Your task to perform on an android device: Open Google Chrome and open the bookmarks view Image 0: 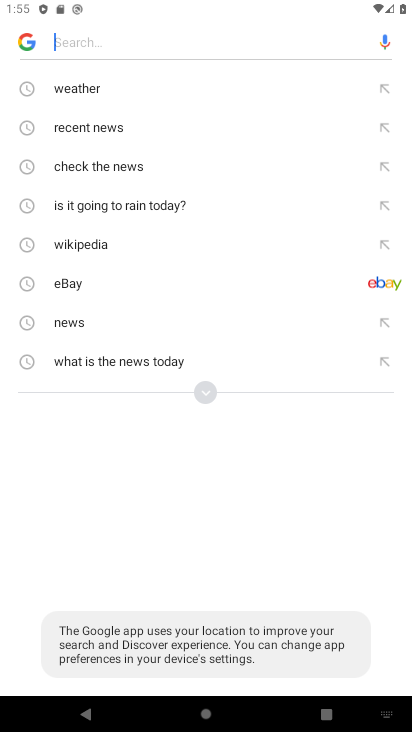
Step 0: press home button
Your task to perform on an android device: Open Google Chrome and open the bookmarks view Image 1: 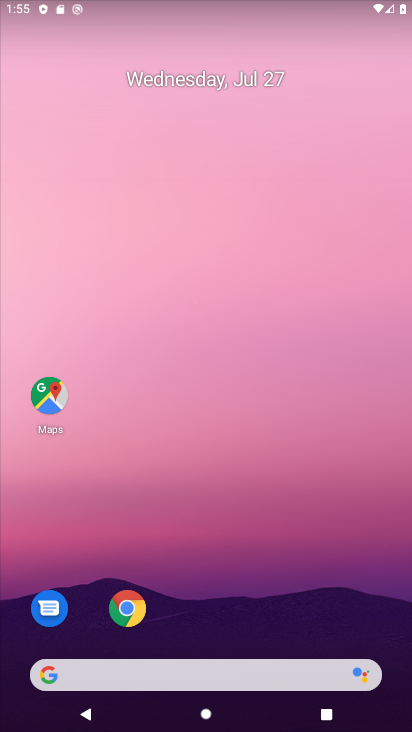
Step 1: click (124, 600)
Your task to perform on an android device: Open Google Chrome and open the bookmarks view Image 2: 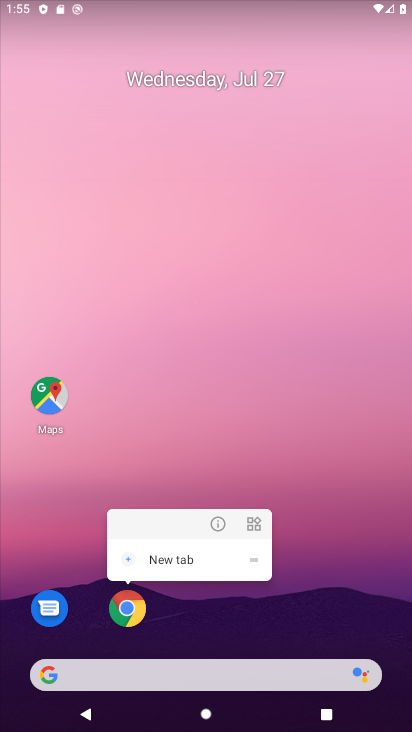
Step 2: click (124, 600)
Your task to perform on an android device: Open Google Chrome and open the bookmarks view Image 3: 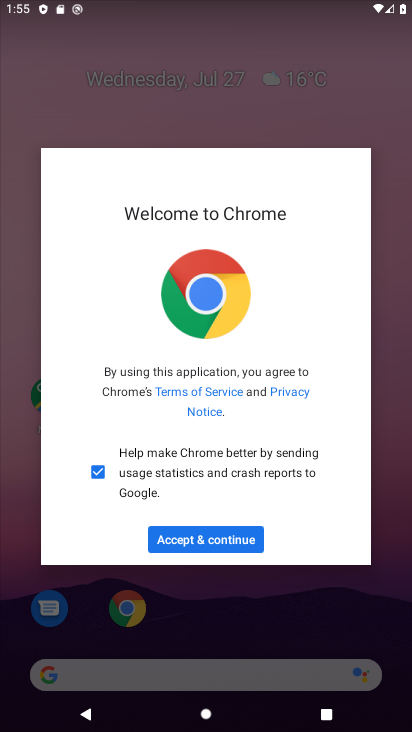
Step 3: click (224, 544)
Your task to perform on an android device: Open Google Chrome and open the bookmarks view Image 4: 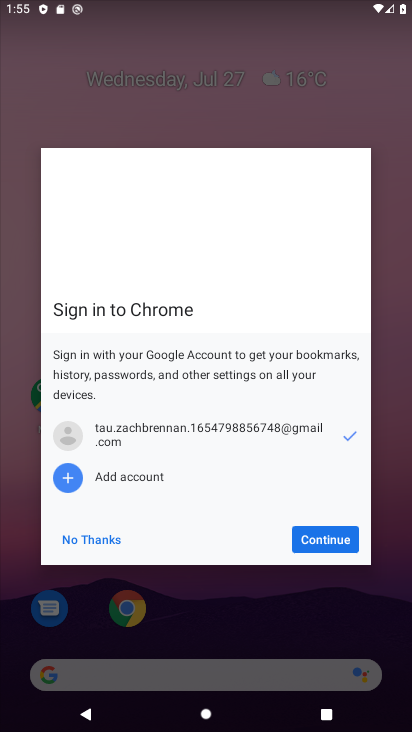
Step 4: click (305, 543)
Your task to perform on an android device: Open Google Chrome and open the bookmarks view Image 5: 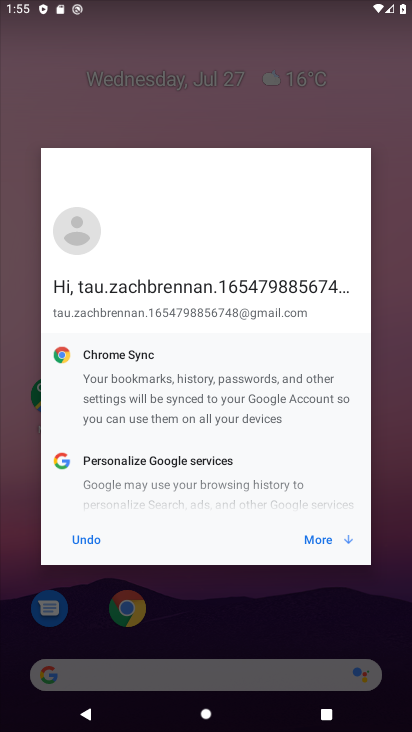
Step 5: click (318, 542)
Your task to perform on an android device: Open Google Chrome and open the bookmarks view Image 6: 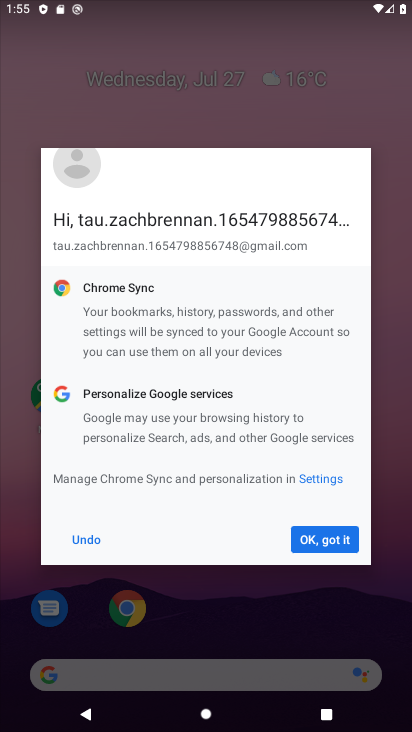
Step 6: click (318, 542)
Your task to perform on an android device: Open Google Chrome and open the bookmarks view Image 7: 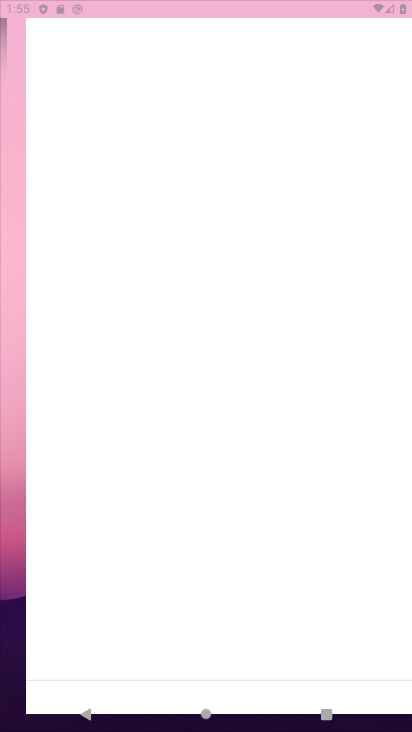
Step 7: click (342, 535)
Your task to perform on an android device: Open Google Chrome and open the bookmarks view Image 8: 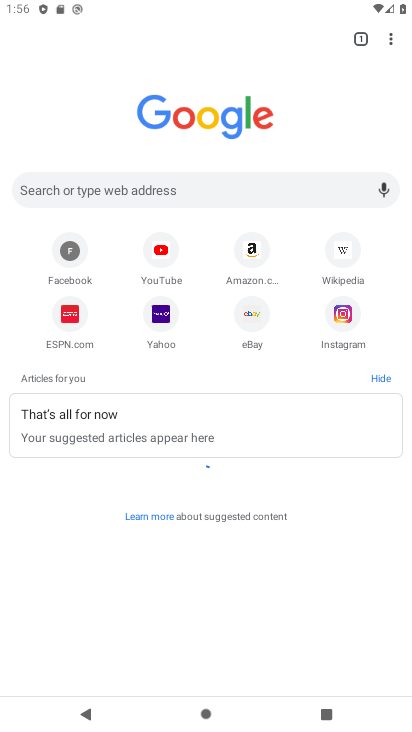
Step 8: click (395, 41)
Your task to perform on an android device: Open Google Chrome and open the bookmarks view Image 9: 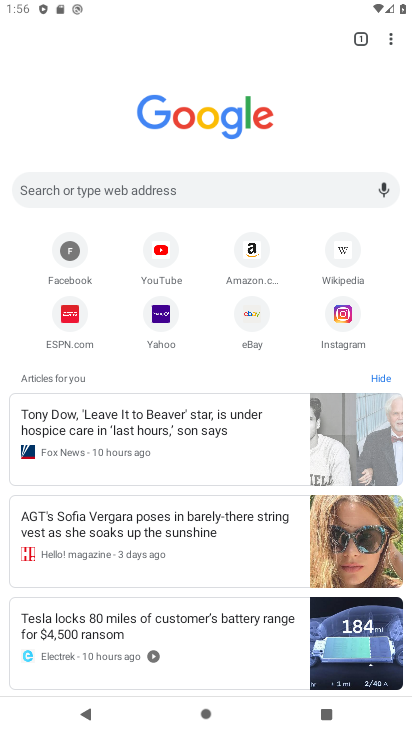
Step 9: click (395, 41)
Your task to perform on an android device: Open Google Chrome and open the bookmarks view Image 10: 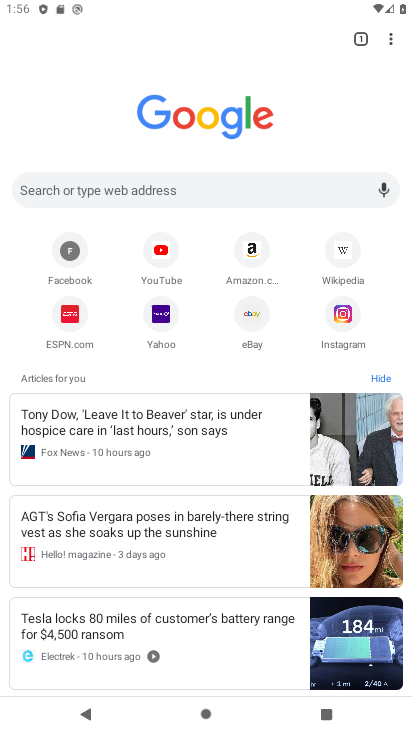
Step 10: click (390, 40)
Your task to perform on an android device: Open Google Chrome and open the bookmarks view Image 11: 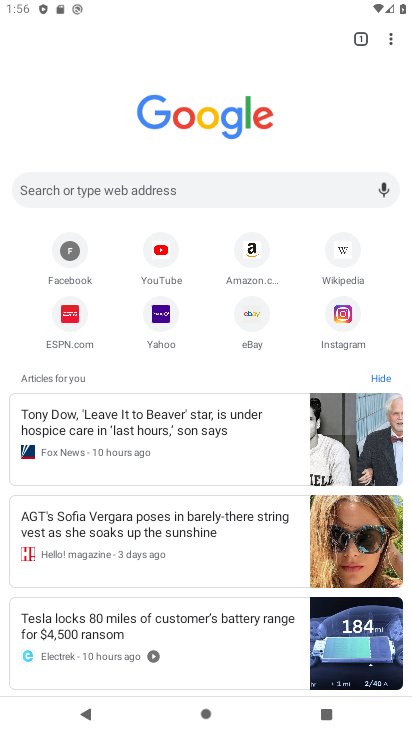
Step 11: click (396, 39)
Your task to perform on an android device: Open Google Chrome and open the bookmarks view Image 12: 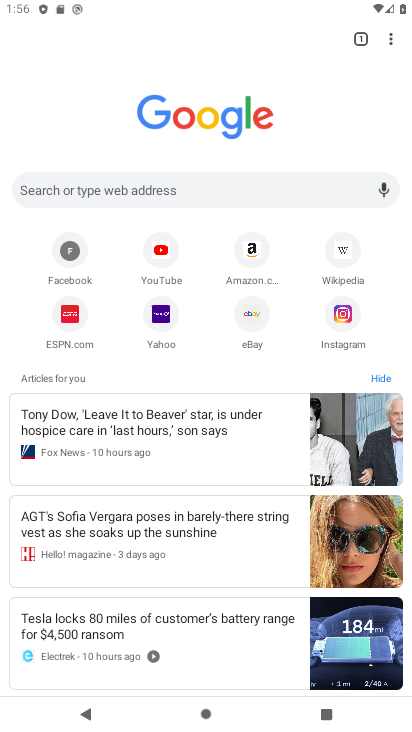
Step 12: click (396, 39)
Your task to perform on an android device: Open Google Chrome and open the bookmarks view Image 13: 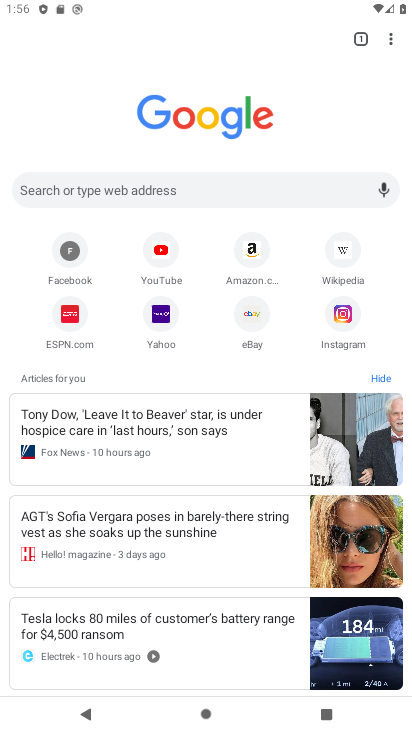
Step 13: click (388, 33)
Your task to perform on an android device: Open Google Chrome and open the bookmarks view Image 14: 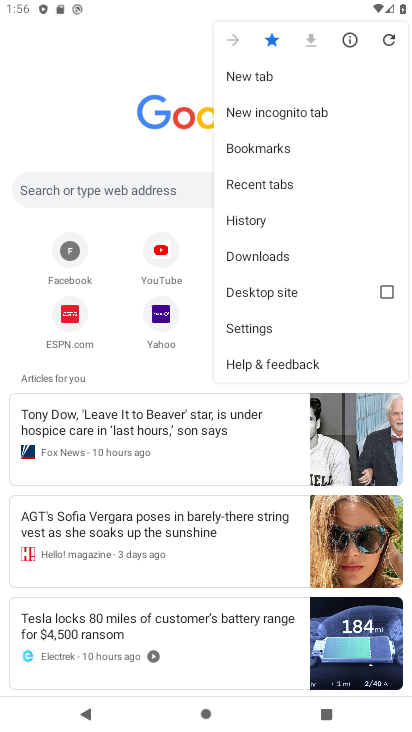
Step 14: click (257, 152)
Your task to perform on an android device: Open Google Chrome and open the bookmarks view Image 15: 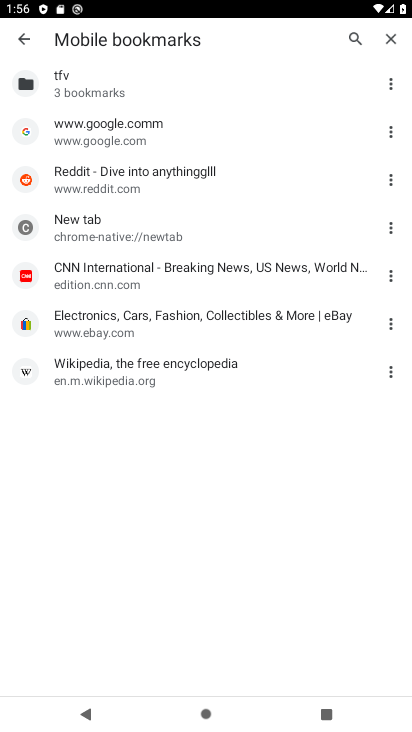
Step 15: task complete